Your task to perform on an android device: Go to Android settings Image 0: 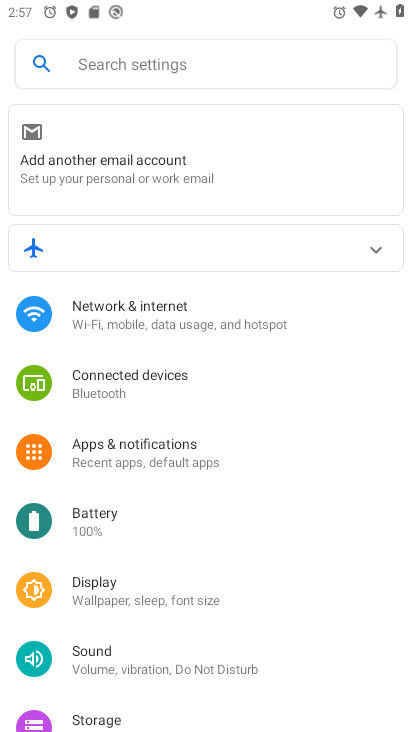
Step 0: drag from (224, 647) to (232, 415)
Your task to perform on an android device: Go to Android settings Image 1: 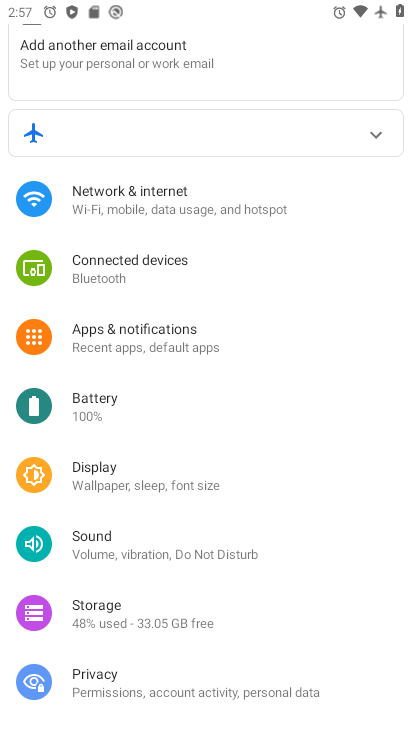
Step 1: task complete